Your task to perform on an android device: Open the web browser Image 0: 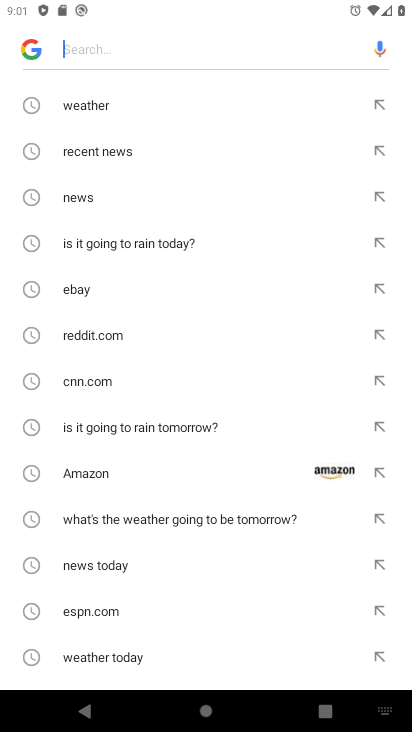
Step 0: press home button
Your task to perform on an android device: Open the web browser Image 1: 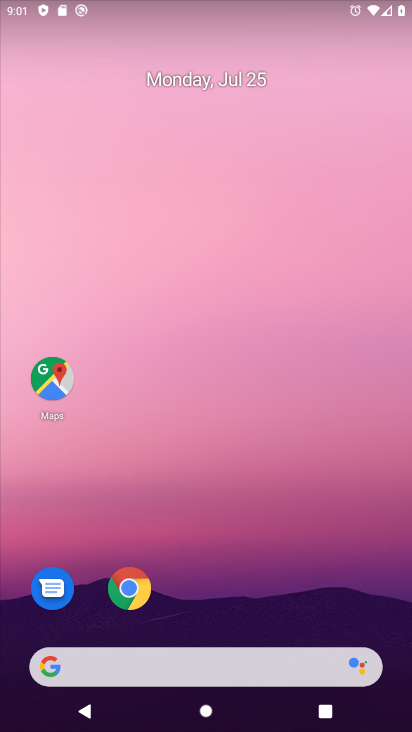
Step 1: click (132, 579)
Your task to perform on an android device: Open the web browser Image 2: 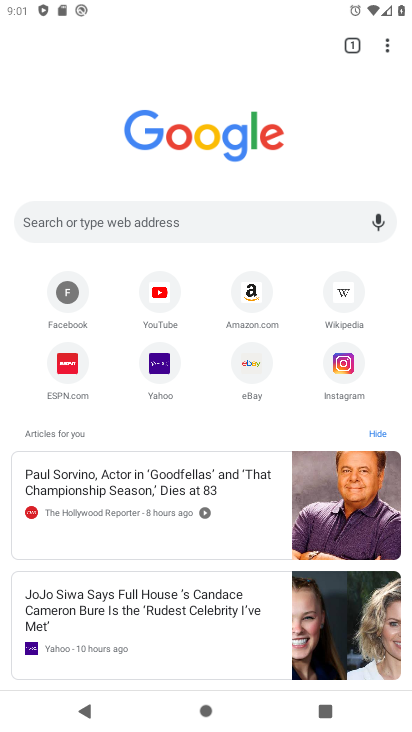
Step 2: click (149, 226)
Your task to perform on an android device: Open the web browser Image 3: 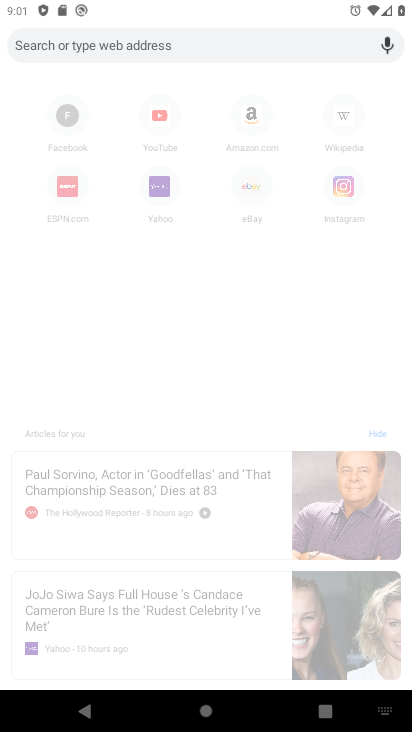
Step 3: type " web browser"
Your task to perform on an android device: Open the web browser Image 4: 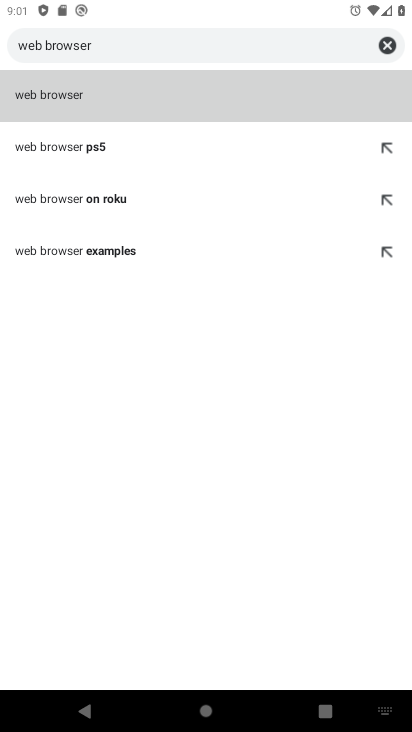
Step 4: click (56, 88)
Your task to perform on an android device: Open the web browser Image 5: 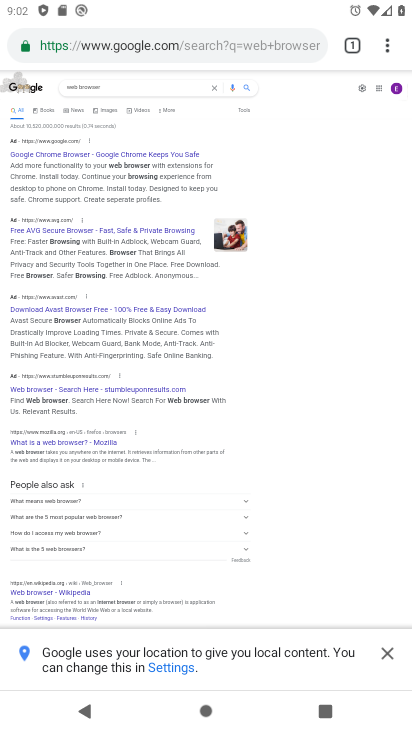
Step 5: task complete